Your task to perform on an android device: change keyboard looks Image 0: 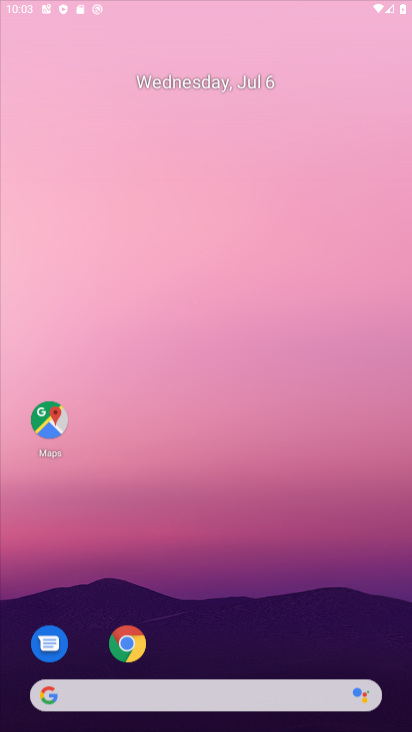
Step 0: press back button
Your task to perform on an android device: change keyboard looks Image 1: 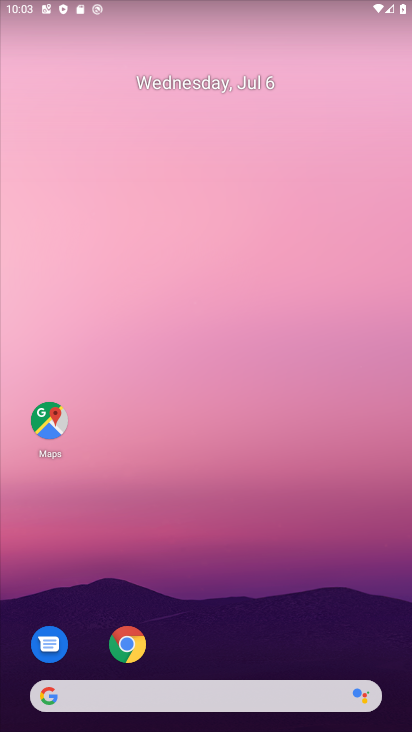
Step 1: drag from (157, 661) to (285, 607)
Your task to perform on an android device: change keyboard looks Image 2: 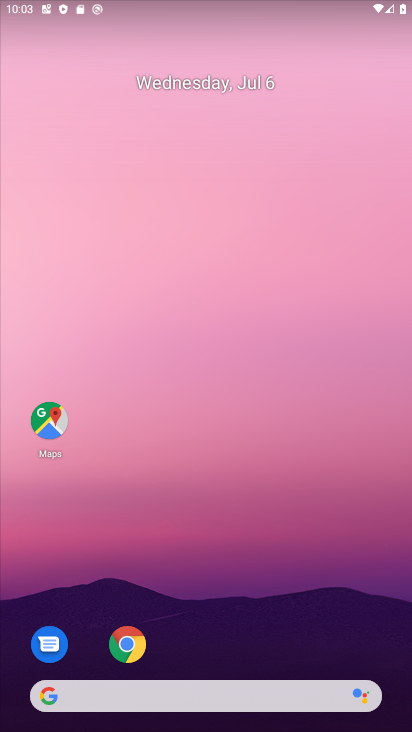
Step 2: drag from (266, 680) to (213, 167)
Your task to perform on an android device: change keyboard looks Image 3: 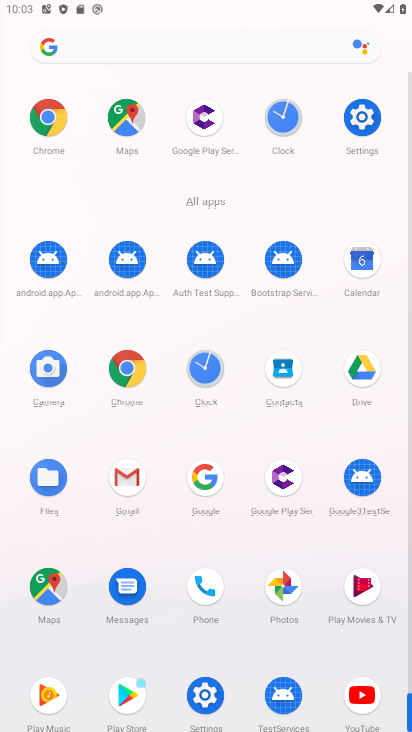
Step 3: click (387, 103)
Your task to perform on an android device: change keyboard looks Image 4: 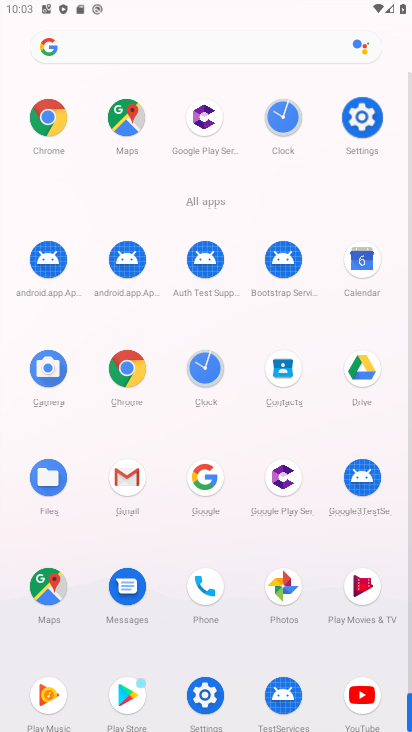
Step 4: click (378, 108)
Your task to perform on an android device: change keyboard looks Image 5: 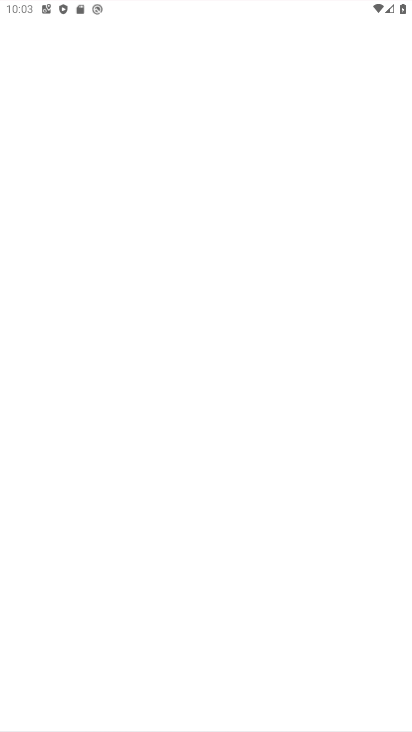
Step 5: click (372, 110)
Your task to perform on an android device: change keyboard looks Image 6: 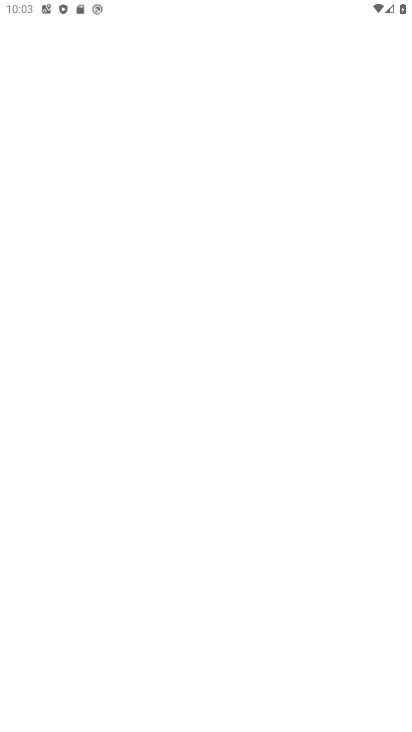
Step 6: click (372, 110)
Your task to perform on an android device: change keyboard looks Image 7: 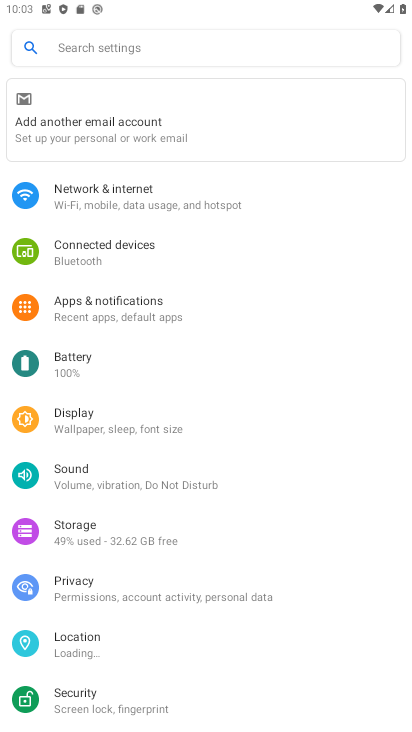
Step 7: drag from (172, 620) to (138, 258)
Your task to perform on an android device: change keyboard looks Image 8: 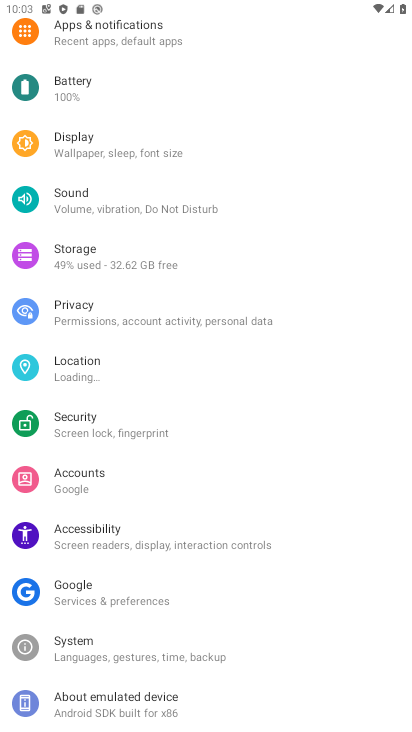
Step 8: drag from (247, 645) to (237, 381)
Your task to perform on an android device: change keyboard looks Image 9: 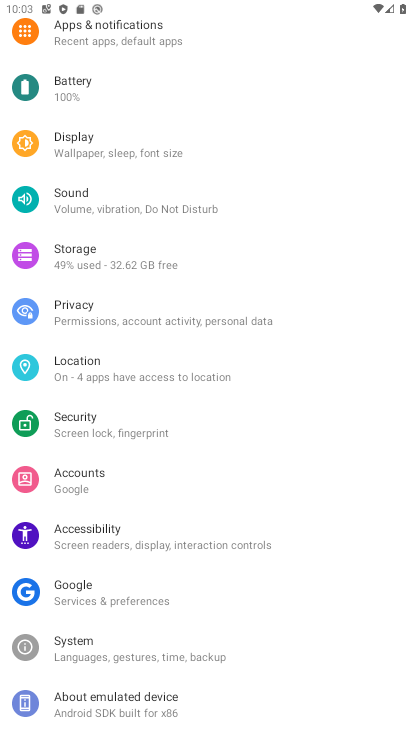
Step 9: click (80, 643)
Your task to perform on an android device: change keyboard looks Image 10: 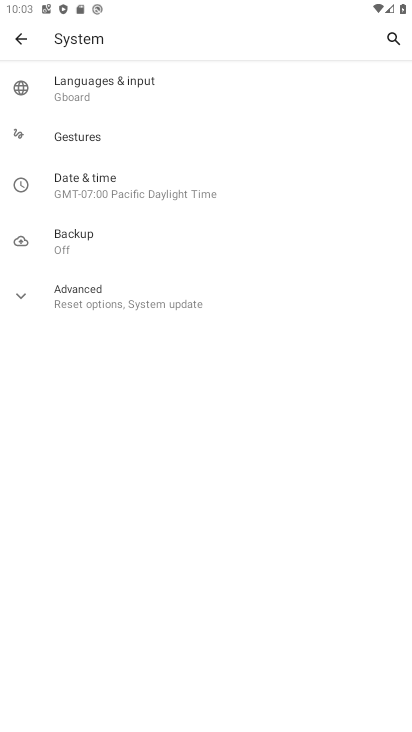
Step 10: click (77, 95)
Your task to perform on an android device: change keyboard looks Image 11: 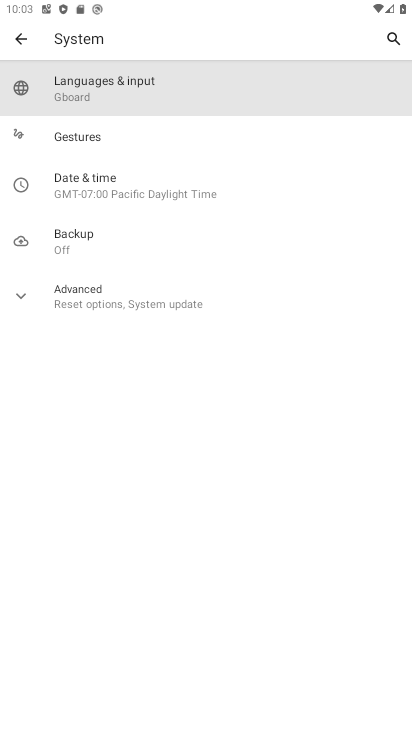
Step 11: click (77, 95)
Your task to perform on an android device: change keyboard looks Image 12: 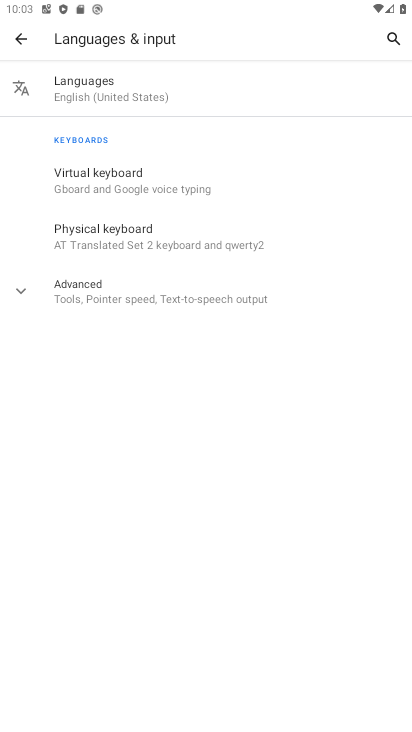
Step 12: click (91, 184)
Your task to perform on an android device: change keyboard looks Image 13: 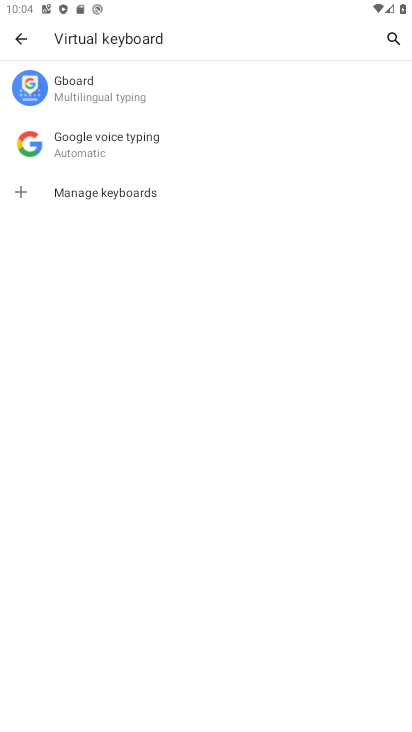
Step 13: click (72, 98)
Your task to perform on an android device: change keyboard looks Image 14: 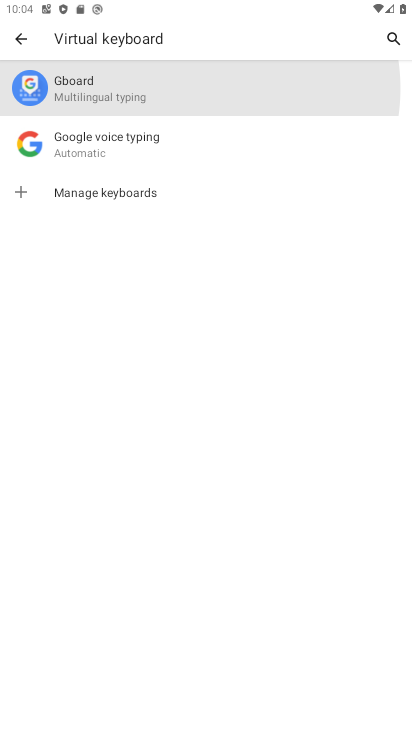
Step 14: click (72, 98)
Your task to perform on an android device: change keyboard looks Image 15: 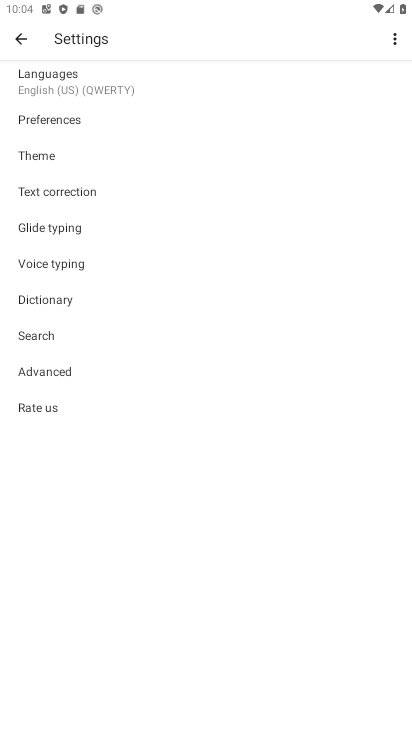
Step 15: click (34, 156)
Your task to perform on an android device: change keyboard looks Image 16: 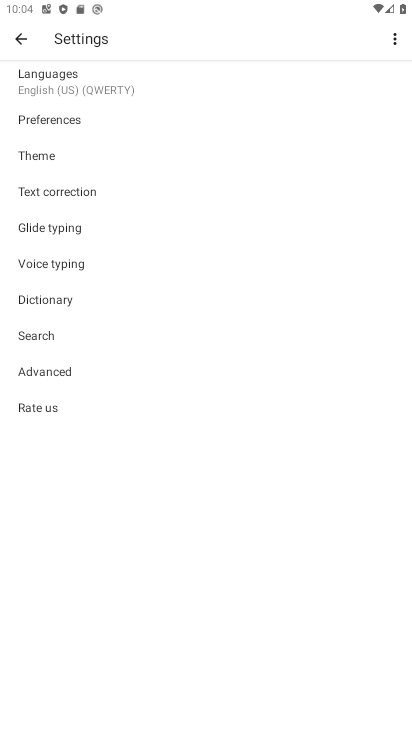
Step 16: click (34, 156)
Your task to perform on an android device: change keyboard looks Image 17: 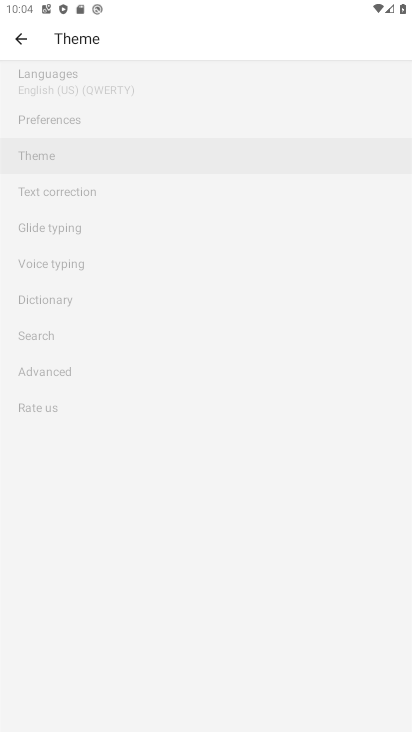
Step 17: click (34, 156)
Your task to perform on an android device: change keyboard looks Image 18: 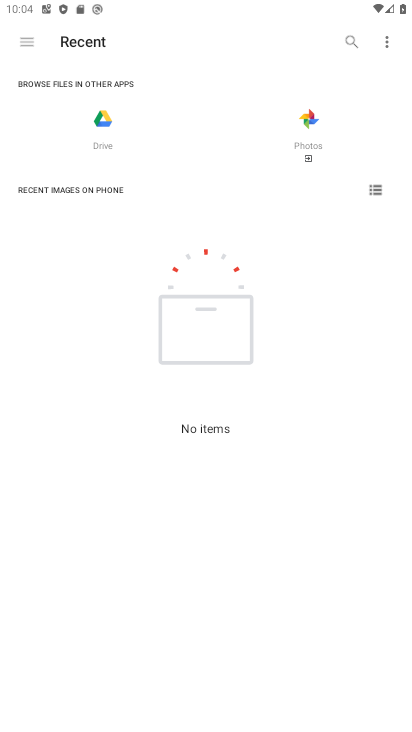
Step 18: click (313, 154)
Your task to perform on an android device: change keyboard looks Image 19: 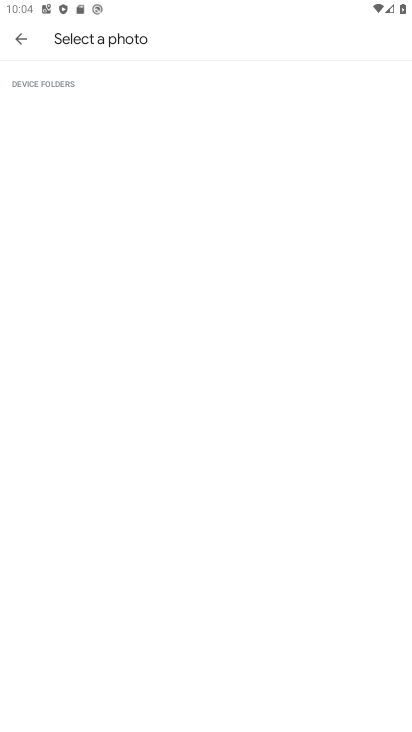
Step 19: click (18, 28)
Your task to perform on an android device: change keyboard looks Image 20: 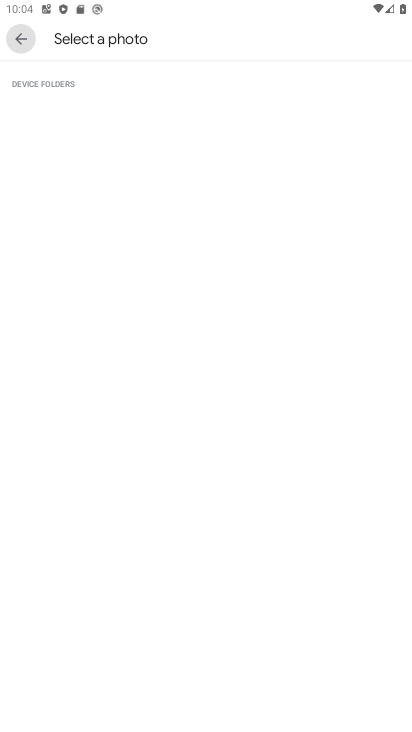
Step 20: click (21, 33)
Your task to perform on an android device: change keyboard looks Image 21: 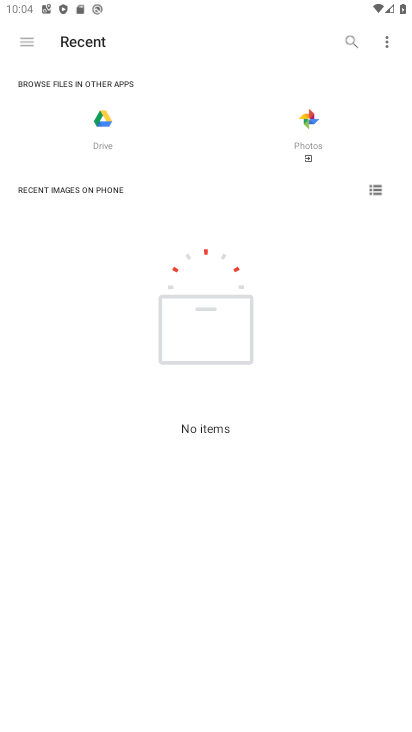
Step 21: click (177, 290)
Your task to perform on an android device: change keyboard looks Image 22: 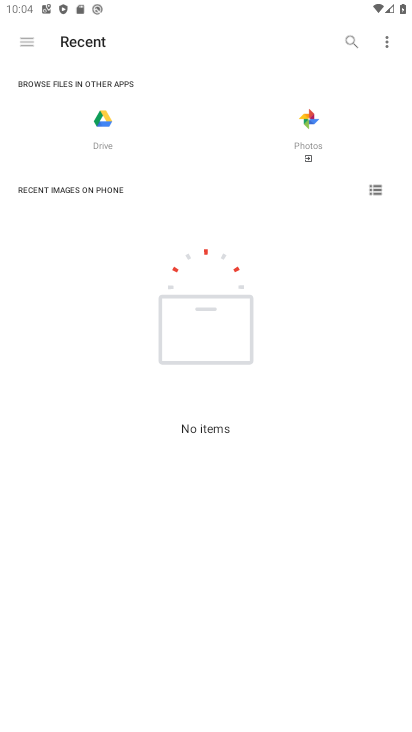
Step 22: click (180, 291)
Your task to perform on an android device: change keyboard looks Image 23: 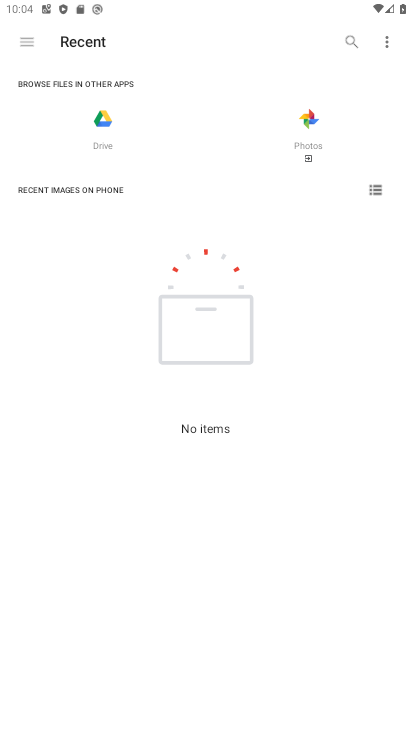
Step 23: click (182, 293)
Your task to perform on an android device: change keyboard looks Image 24: 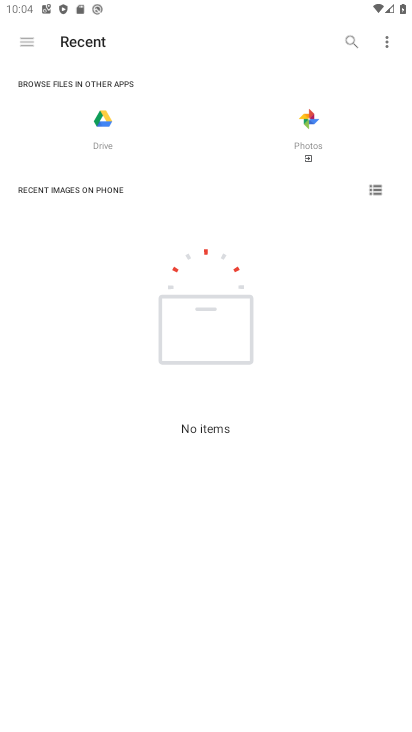
Step 24: click (186, 298)
Your task to perform on an android device: change keyboard looks Image 25: 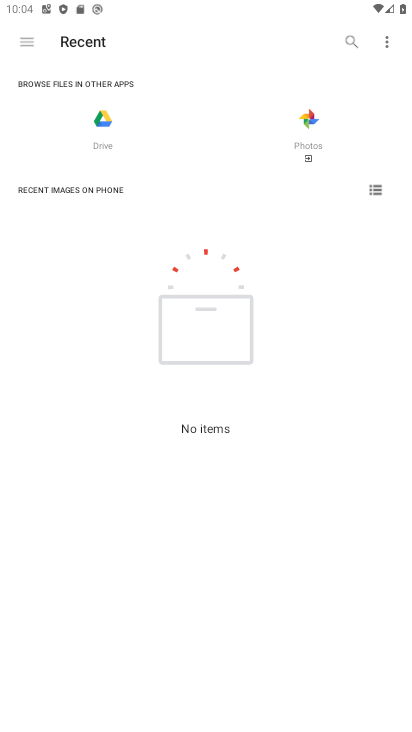
Step 25: click (84, 115)
Your task to perform on an android device: change keyboard looks Image 26: 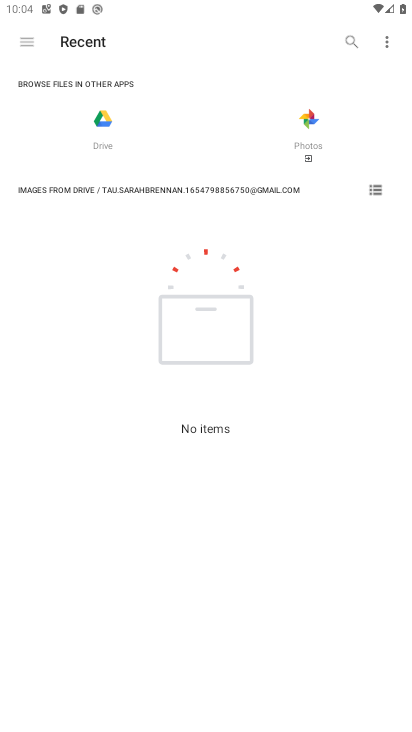
Step 26: click (85, 115)
Your task to perform on an android device: change keyboard looks Image 27: 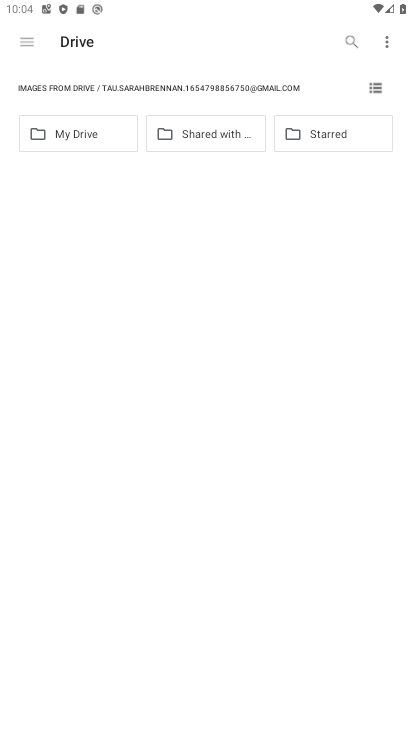
Step 27: click (92, 116)
Your task to perform on an android device: change keyboard looks Image 28: 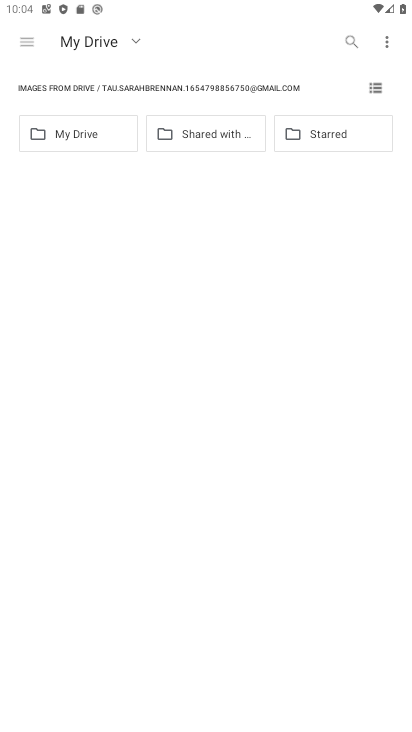
Step 28: click (92, 116)
Your task to perform on an android device: change keyboard looks Image 29: 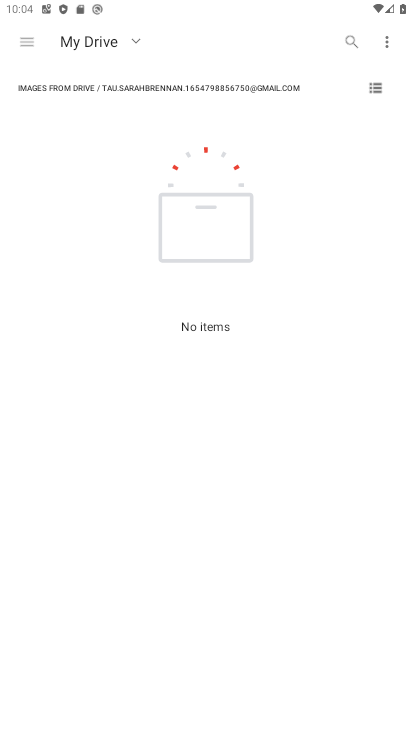
Step 29: task complete